Your task to perform on an android device: empty trash in google photos Image 0: 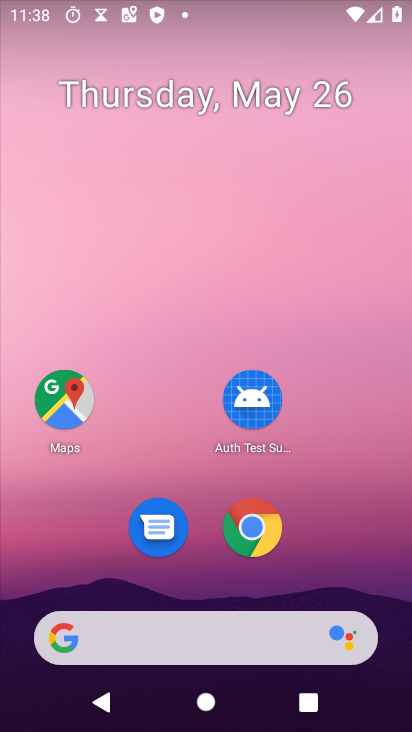
Step 0: press home button
Your task to perform on an android device: empty trash in google photos Image 1: 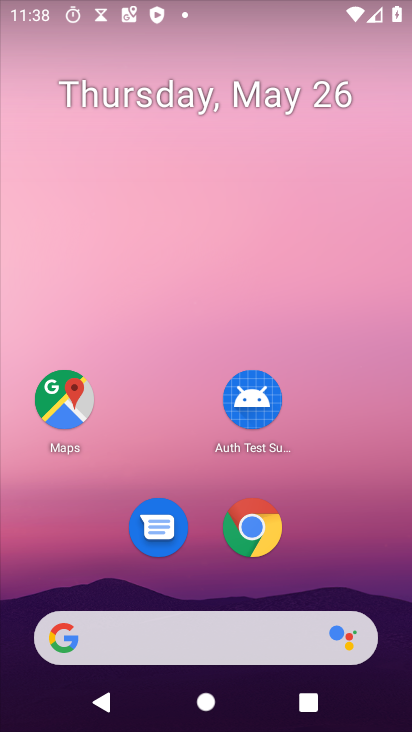
Step 1: drag from (360, 542) to (96, 28)
Your task to perform on an android device: empty trash in google photos Image 2: 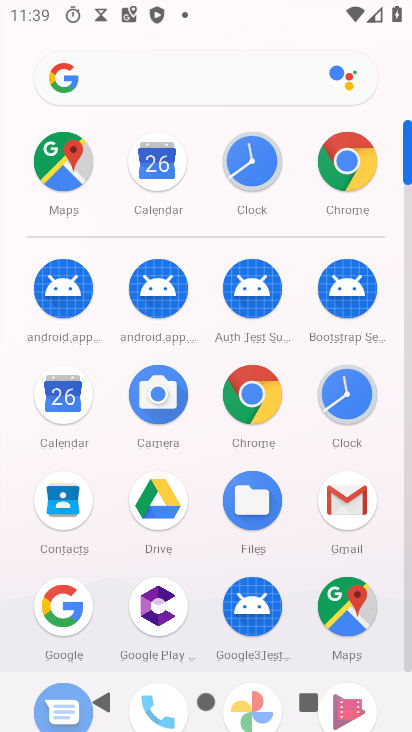
Step 2: drag from (386, 513) to (356, 237)
Your task to perform on an android device: empty trash in google photos Image 3: 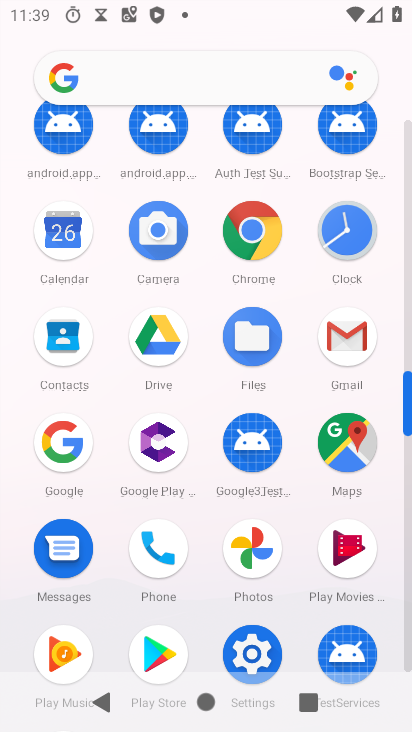
Step 3: click (259, 558)
Your task to perform on an android device: empty trash in google photos Image 4: 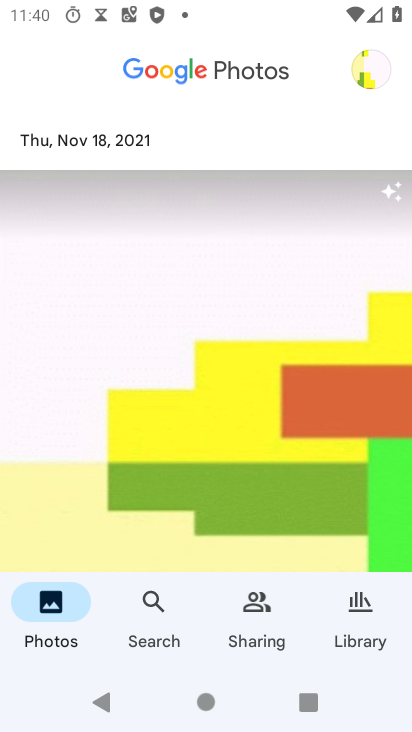
Step 4: task complete